Your task to perform on an android device: Open location settings Image 0: 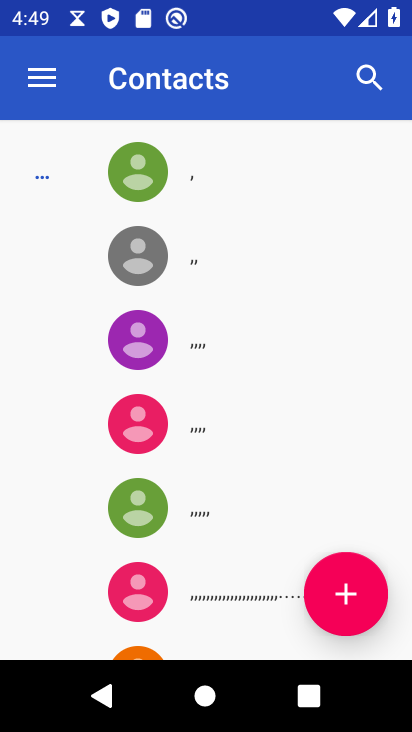
Step 0: press back button
Your task to perform on an android device: Open location settings Image 1: 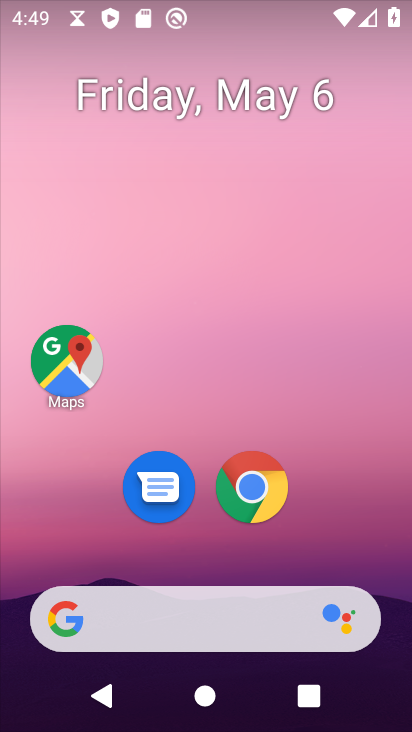
Step 1: drag from (312, 525) to (275, 3)
Your task to perform on an android device: Open location settings Image 2: 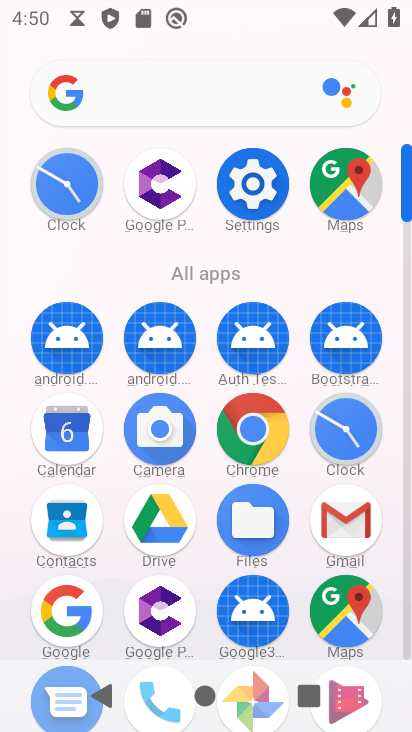
Step 2: click (256, 184)
Your task to perform on an android device: Open location settings Image 3: 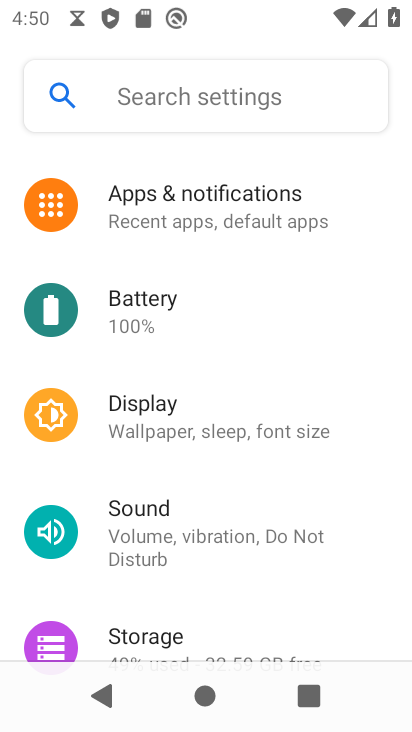
Step 3: drag from (194, 468) to (262, 300)
Your task to perform on an android device: Open location settings Image 4: 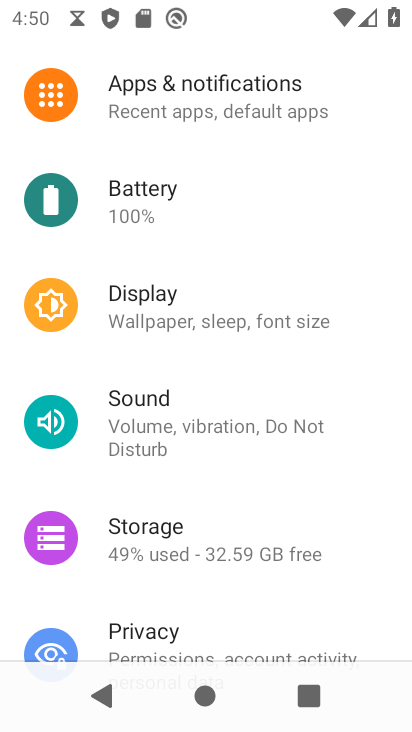
Step 4: drag from (224, 516) to (286, 321)
Your task to perform on an android device: Open location settings Image 5: 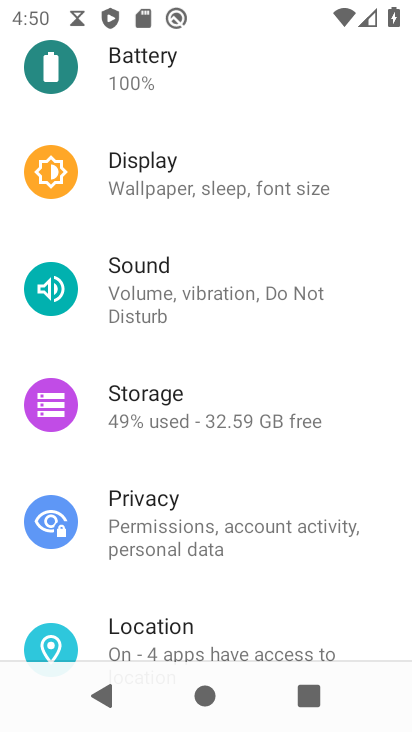
Step 5: drag from (216, 503) to (283, 321)
Your task to perform on an android device: Open location settings Image 6: 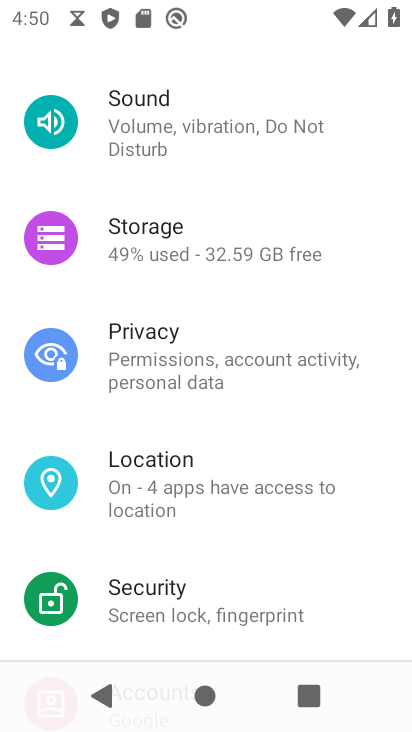
Step 6: click (193, 492)
Your task to perform on an android device: Open location settings Image 7: 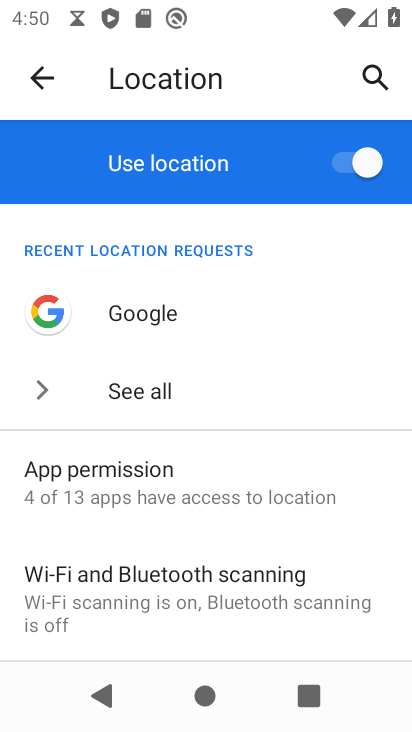
Step 7: task complete